Your task to perform on an android device: find photos in the google photos app Image 0: 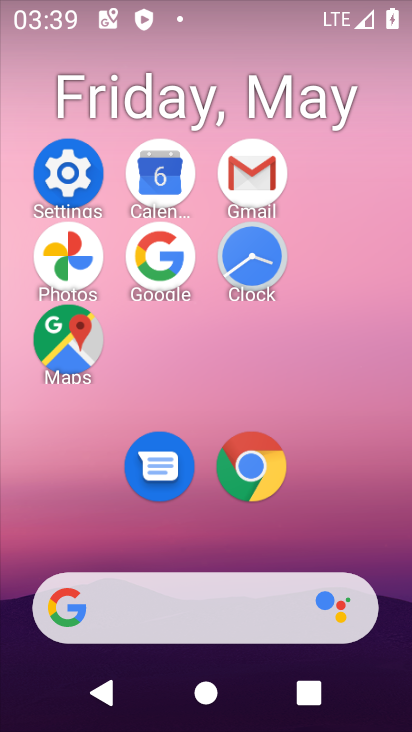
Step 0: click (87, 265)
Your task to perform on an android device: find photos in the google photos app Image 1: 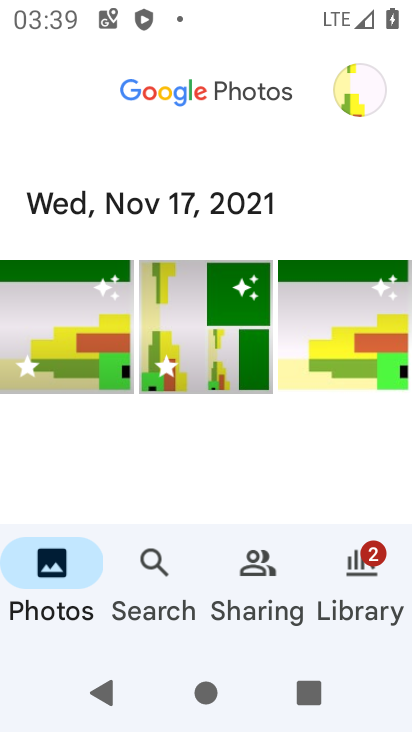
Step 1: click (95, 337)
Your task to perform on an android device: find photos in the google photos app Image 2: 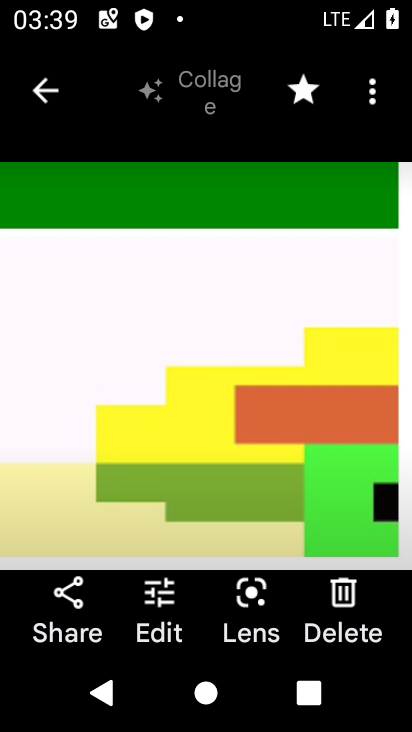
Step 2: task complete